Your task to perform on an android device: turn off notifications in google photos Image 0: 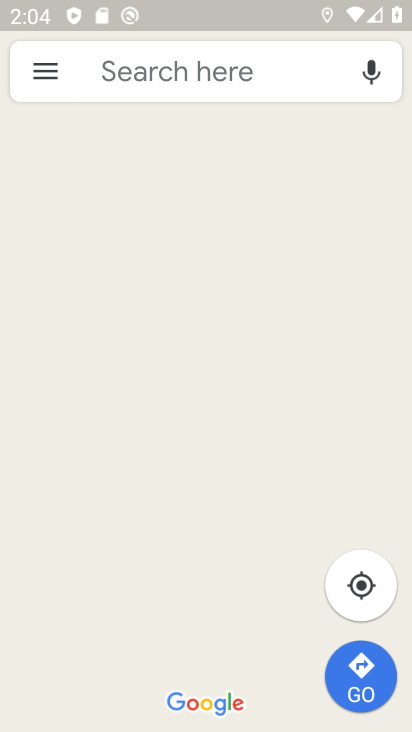
Step 0: press home button
Your task to perform on an android device: turn off notifications in google photos Image 1: 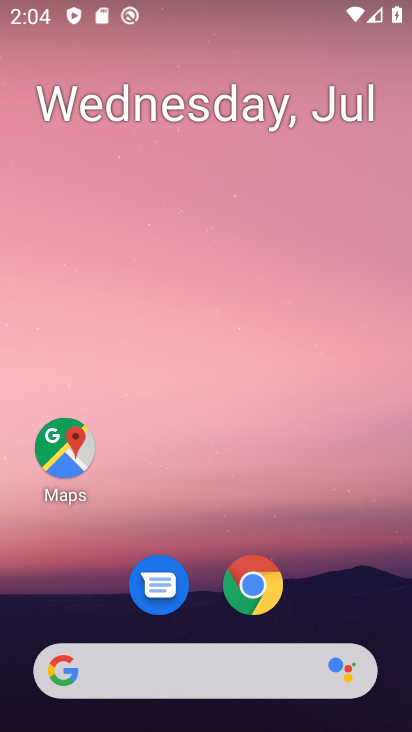
Step 1: drag from (225, 378) to (301, 109)
Your task to perform on an android device: turn off notifications in google photos Image 2: 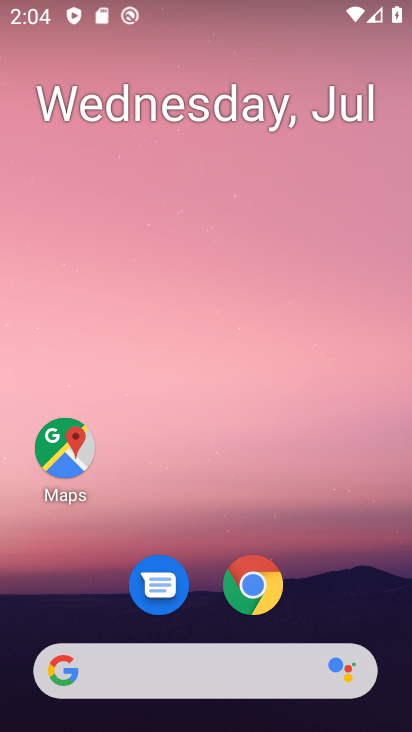
Step 2: drag from (204, 658) to (372, 26)
Your task to perform on an android device: turn off notifications in google photos Image 3: 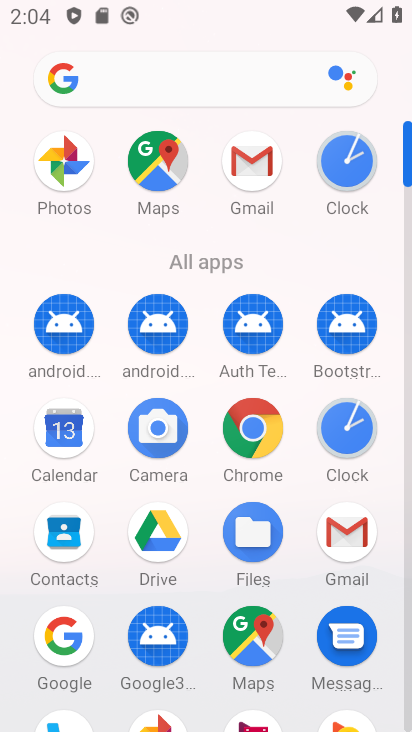
Step 3: drag from (218, 589) to (355, 205)
Your task to perform on an android device: turn off notifications in google photos Image 4: 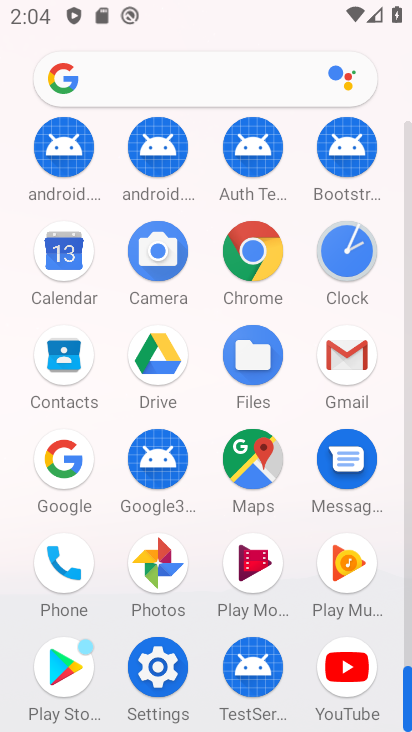
Step 4: click (173, 559)
Your task to perform on an android device: turn off notifications in google photos Image 5: 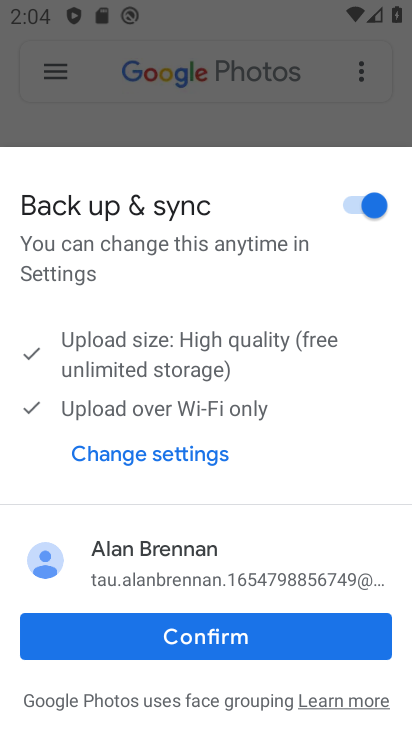
Step 5: click (193, 640)
Your task to perform on an android device: turn off notifications in google photos Image 6: 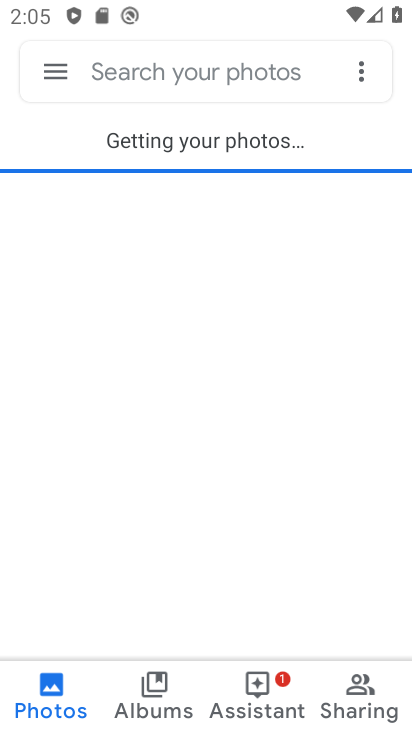
Step 6: click (52, 71)
Your task to perform on an android device: turn off notifications in google photos Image 7: 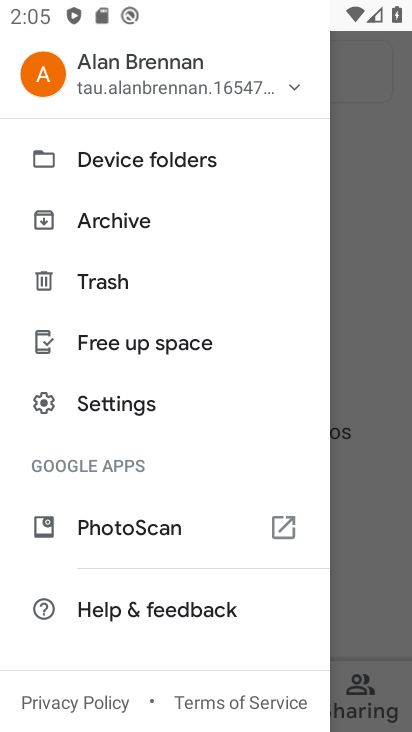
Step 7: click (122, 405)
Your task to perform on an android device: turn off notifications in google photos Image 8: 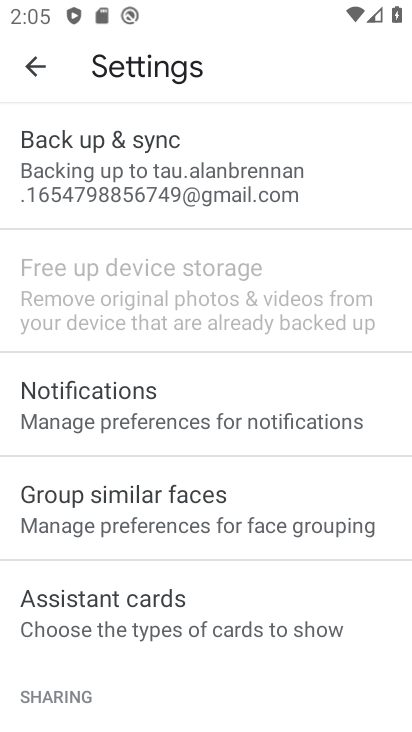
Step 8: click (175, 410)
Your task to perform on an android device: turn off notifications in google photos Image 9: 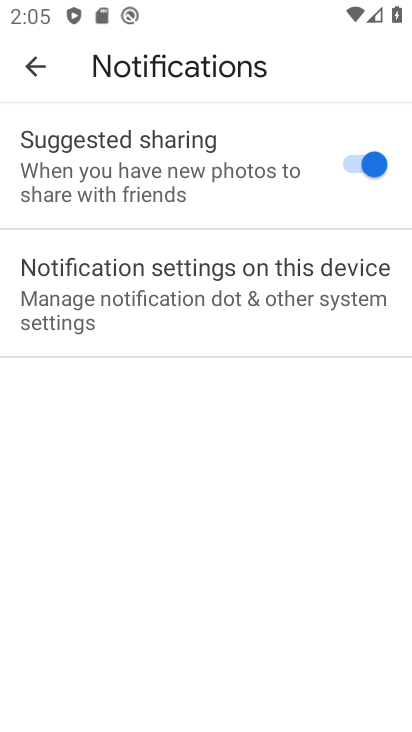
Step 9: click (171, 316)
Your task to perform on an android device: turn off notifications in google photos Image 10: 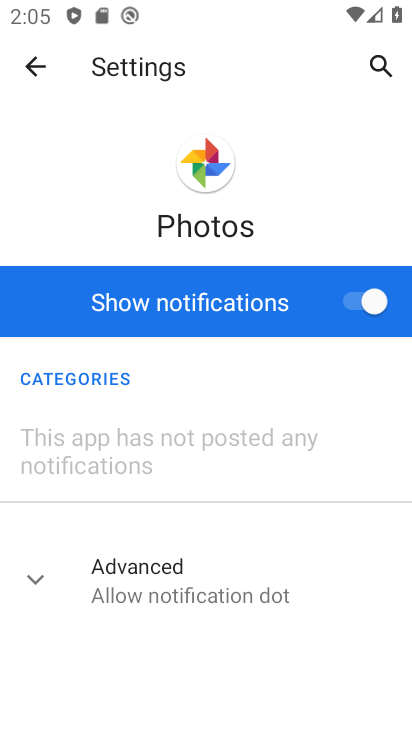
Step 10: click (353, 303)
Your task to perform on an android device: turn off notifications in google photos Image 11: 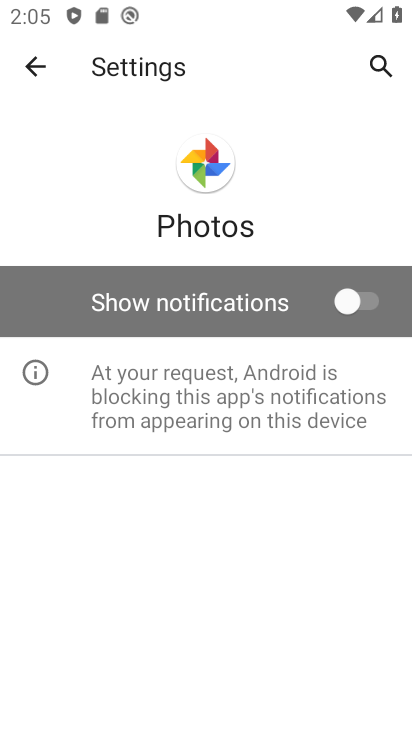
Step 11: task complete